Your task to perform on an android device: set default search engine in the chrome app Image 0: 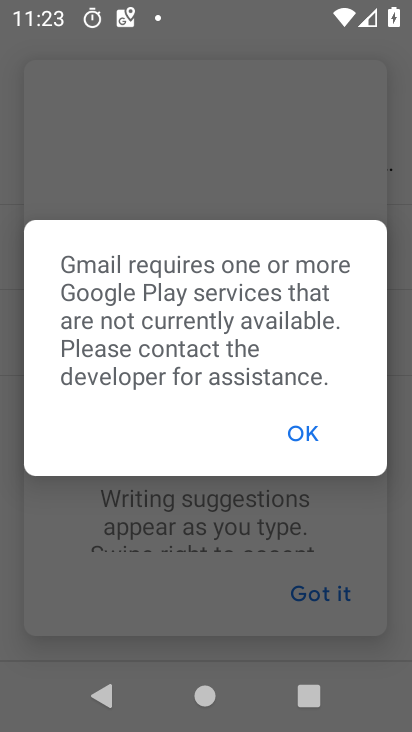
Step 0: press home button
Your task to perform on an android device: set default search engine in the chrome app Image 1: 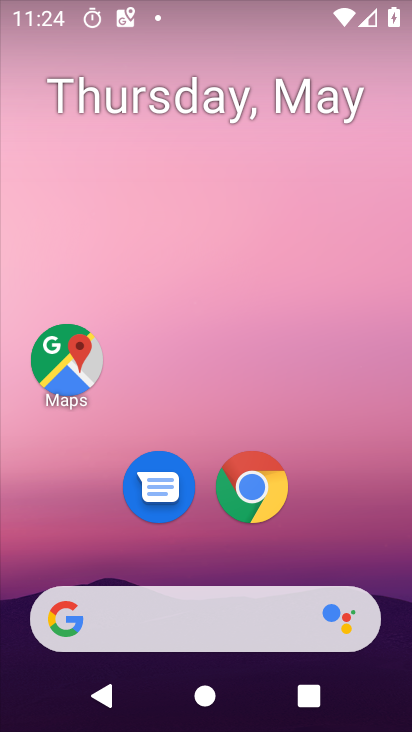
Step 1: click (266, 488)
Your task to perform on an android device: set default search engine in the chrome app Image 2: 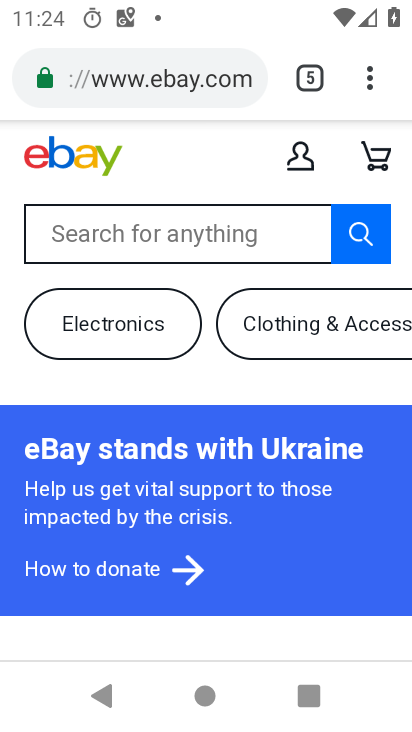
Step 2: click (372, 74)
Your task to perform on an android device: set default search engine in the chrome app Image 3: 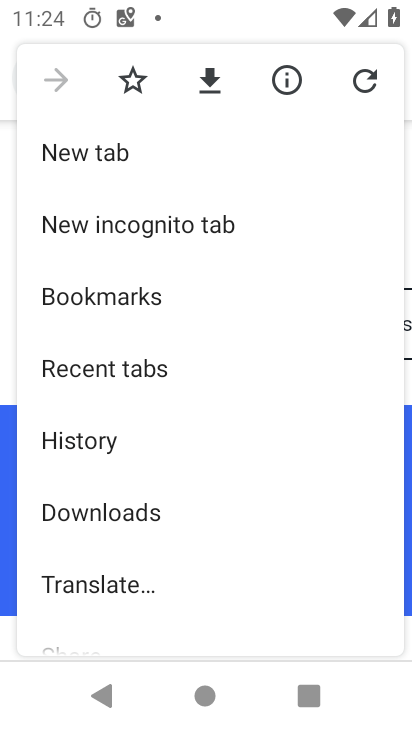
Step 3: drag from (221, 474) to (231, 198)
Your task to perform on an android device: set default search engine in the chrome app Image 4: 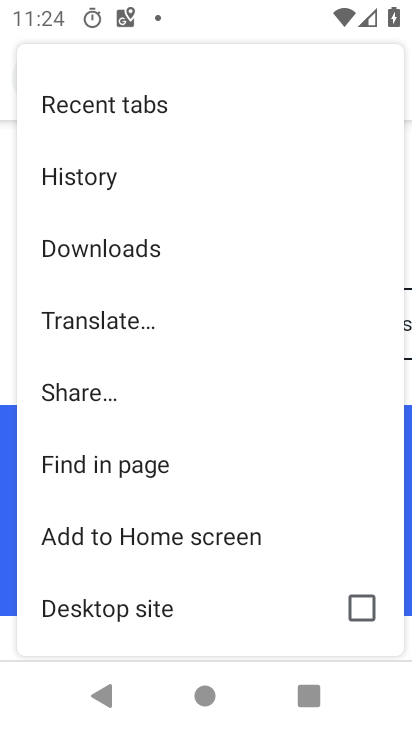
Step 4: drag from (233, 589) to (297, 220)
Your task to perform on an android device: set default search engine in the chrome app Image 5: 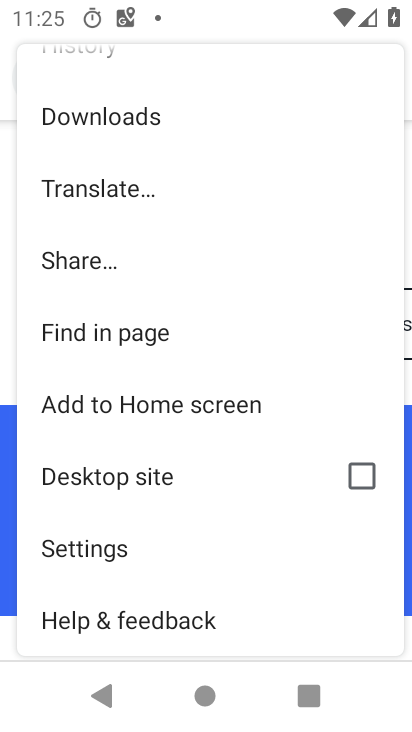
Step 5: drag from (218, 556) to (212, 174)
Your task to perform on an android device: set default search engine in the chrome app Image 6: 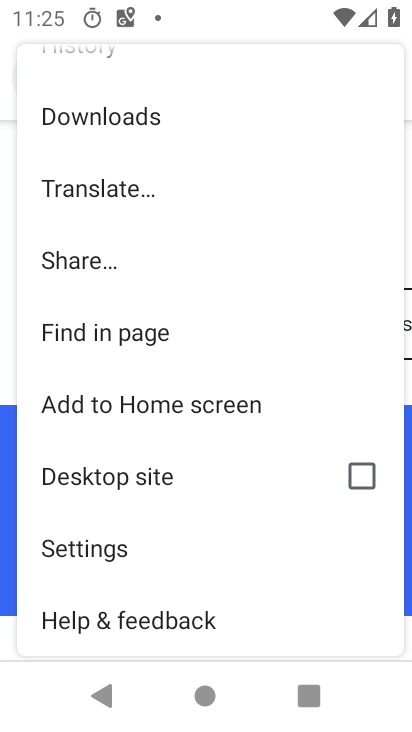
Step 6: click (101, 556)
Your task to perform on an android device: set default search engine in the chrome app Image 7: 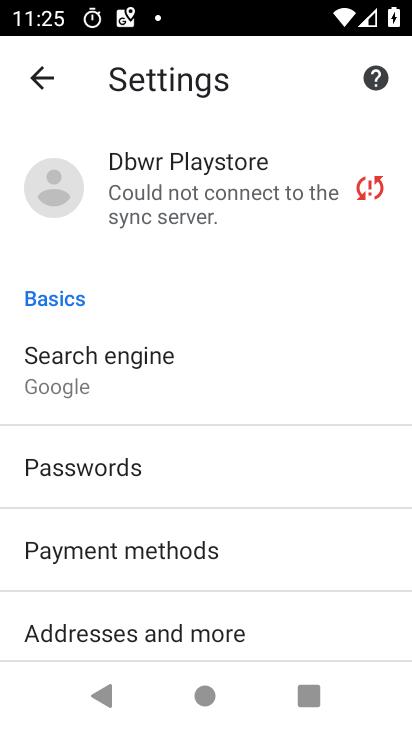
Step 7: click (154, 368)
Your task to perform on an android device: set default search engine in the chrome app Image 8: 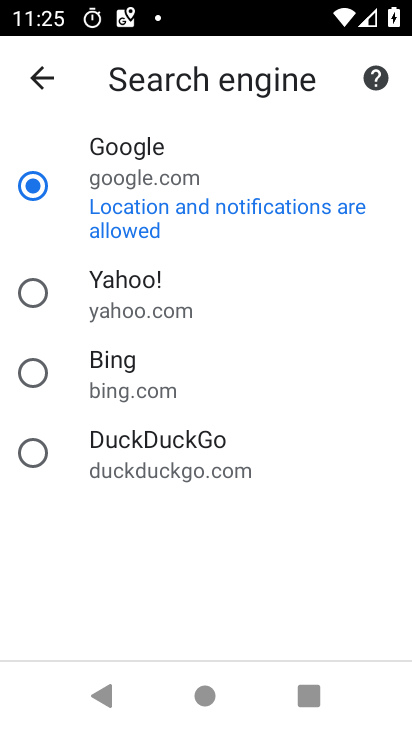
Step 8: task complete